Your task to perform on an android device: Open calendar and show me the fourth week of next month Image 0: 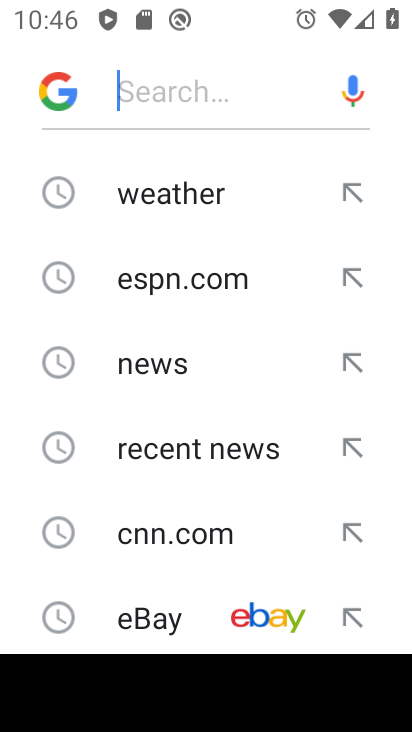
Step 0: press back button
Your task to perform on an android device: Open calendar and show me the fourth week of next month Image 1: 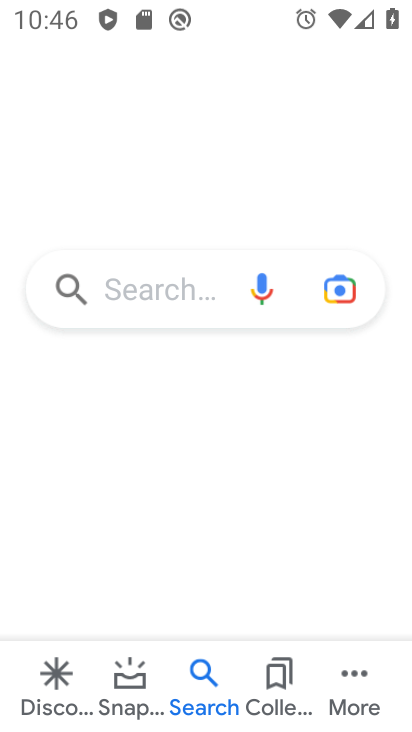
Step 1: press back button
Your task to perform on an android device: Open calendar and show me the fourth week of next month Image 2: 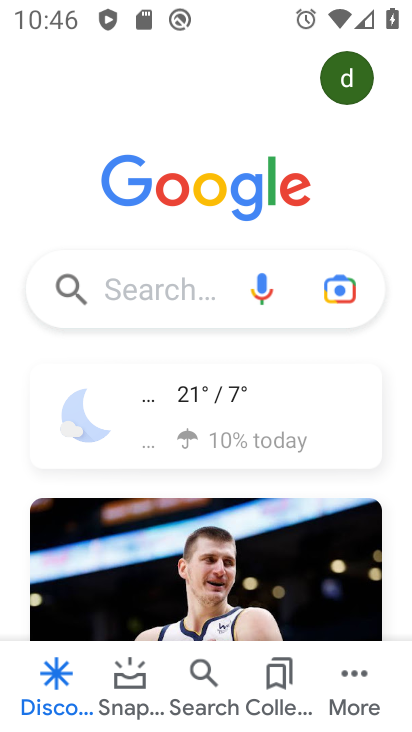
Step 2: press back button
Your task to perform on an android device: Open calendar and show me the fourth week of next month Image 3: 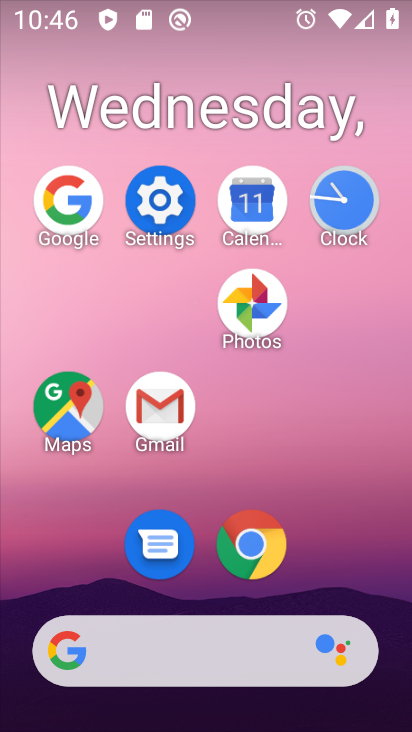
Step 3: click (243, 206)
Your task to perform on an android device: Open calendar and show me the fourth week of next month Image 4: 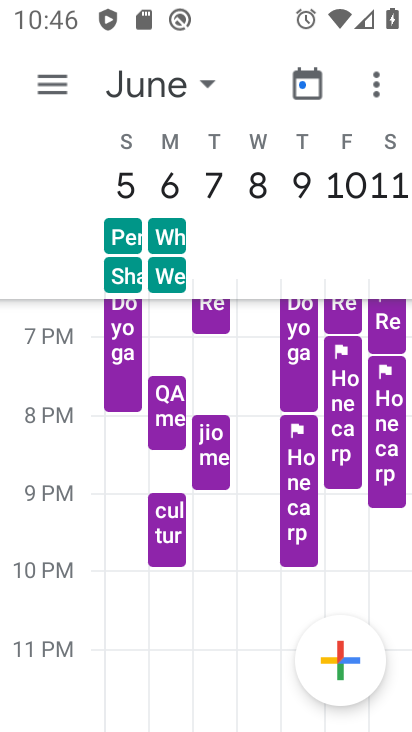
Step 4: click (54, 84)
Your task to perform on an android device: Open calendar and show me the fourth week of next month Image 5: 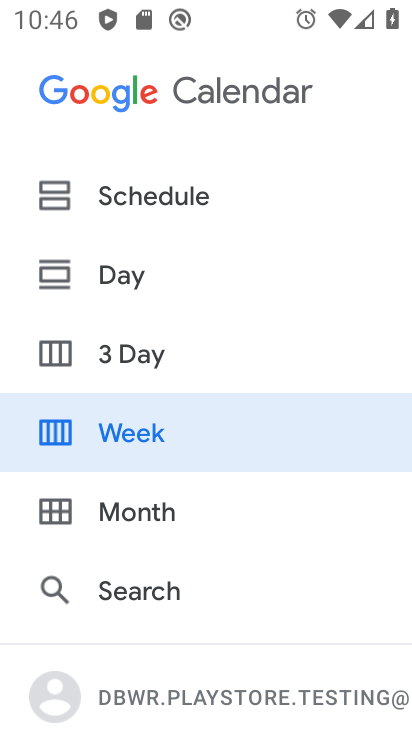
Step 5: click (204, 450)
Your task to perform on an android device: Open calendar and show me the fourth week of next month Image 6: 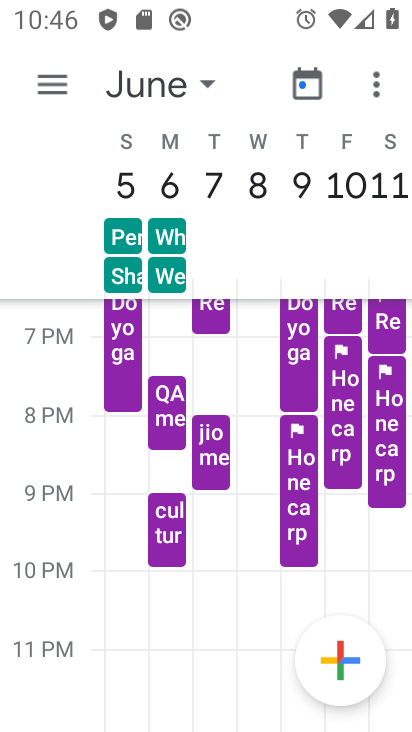
Step 6: task complete